Your task to perform on an android device: turn on wifi Image 0: 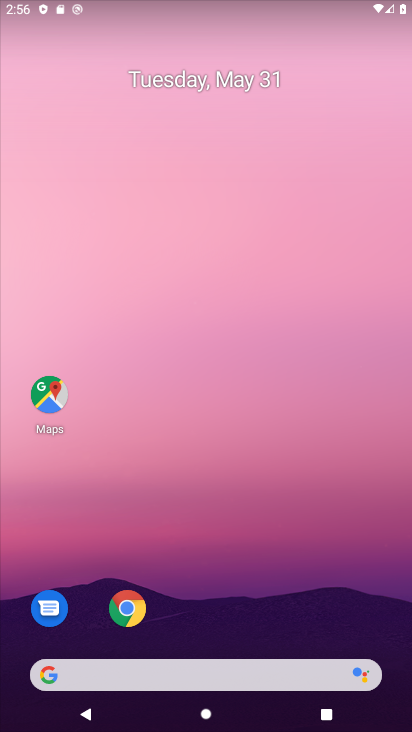
Step 0: drag from (115, 12) to (183, 551)
Your task to perform on an android device: turn on wifi Image 1: 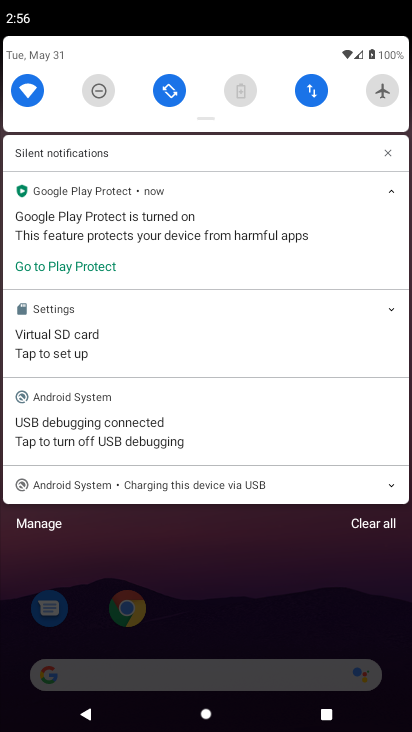
Step 1: task complete